Your task to perform on an android device: open sync settings in chrome Image 0: 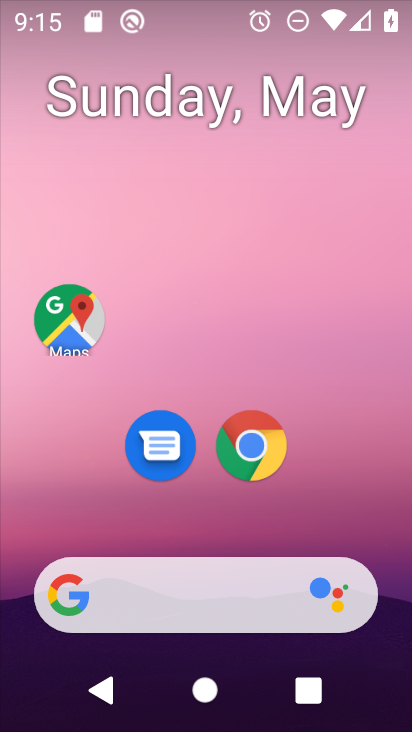
Step 0: click (267, 458)
Your task to perform on an android device: open sync settings in chrome Image 1: 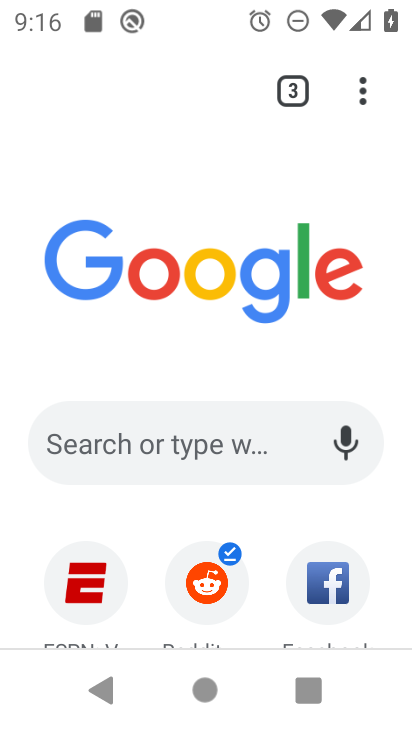
Step 1: click (363, 87)
Your task to perform on an android device: open sync settings in chrome Image 2: 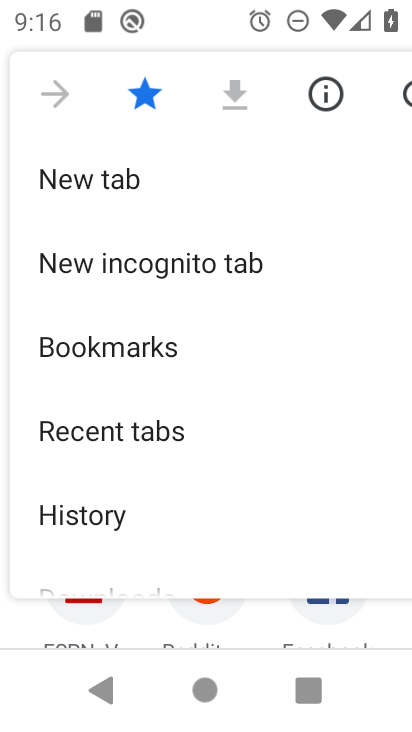
Step 2: drag from (166, 471) to (228, 173)
Your task to perform on an android device: open sync settings in chrome Image 3: 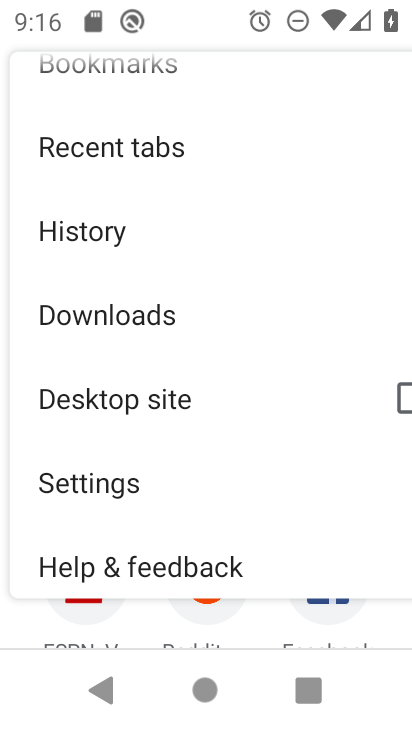
Step 3: click (137, 483)
Your task to perform on an android device: open sync settings in chrome Image 4: 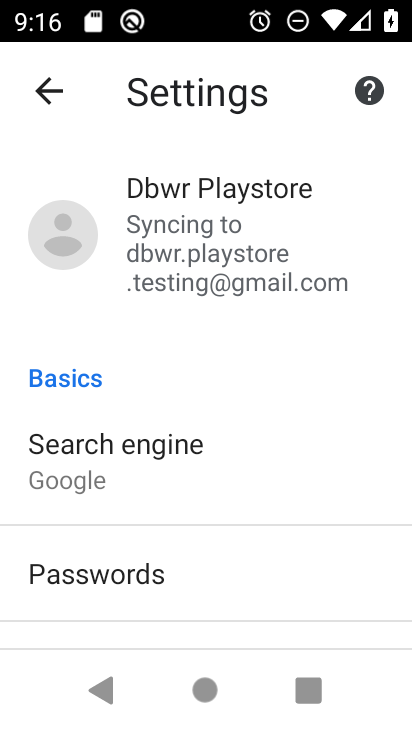
Step 4: click (261, 249)
Your task to perform on an android device: open sync settings in chrome Image 5: 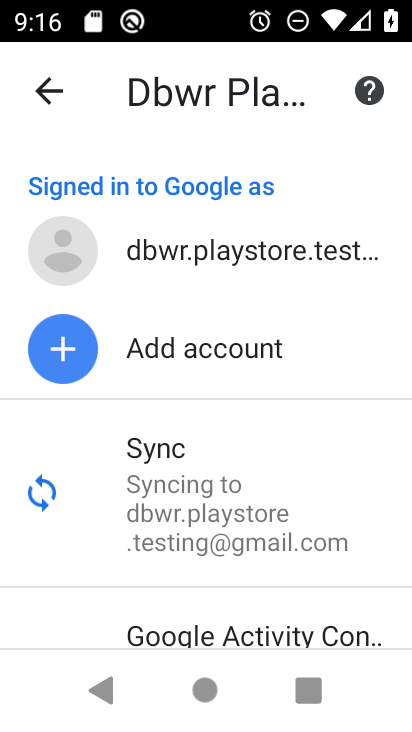
Step 5: click (254, 508)
Your task to perform on an android device: open sync settings in chrome Image 6: 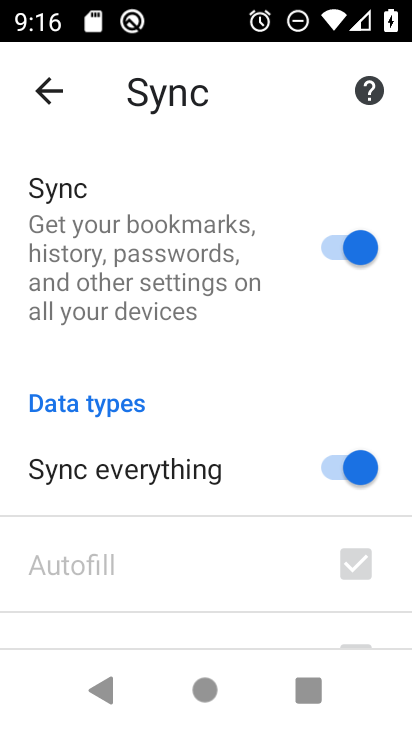
Step 6: task complete